Your task to perform on an android device: toggle javascript in the chrome app Image 0: 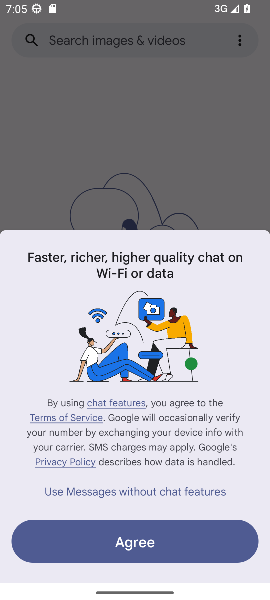
Step 0: press home button
Your task to perform on an android device: toggle javascript in the chrome app Image 1: 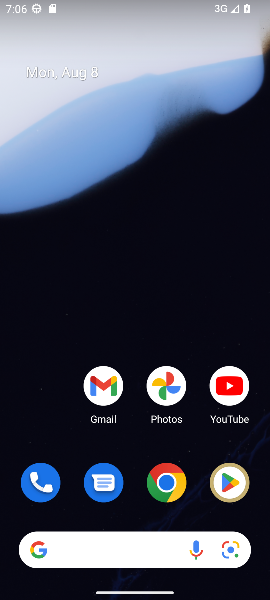
Step 1: drag from (83, 481) to (123, 0)
Your task to perform on an android device: toggle javascript in the chrome app Image 2: 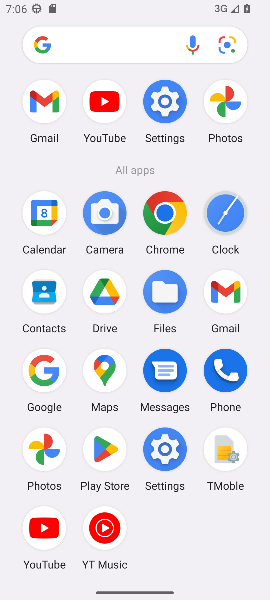
Step 2: click (154, 232)
Your task to perform on an android device: toggle javascript in the chrome app Image 3: 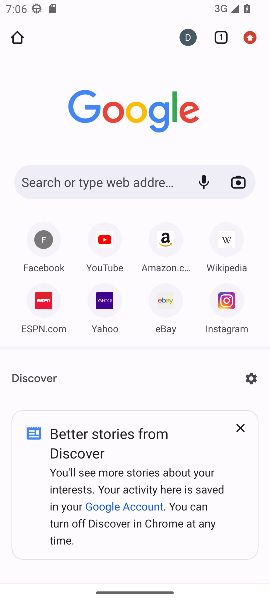
Step 3: drag from (252, 33) to (106, 396)
Your task to perform on an android device: toggle javascript in the chrome app Image 4: 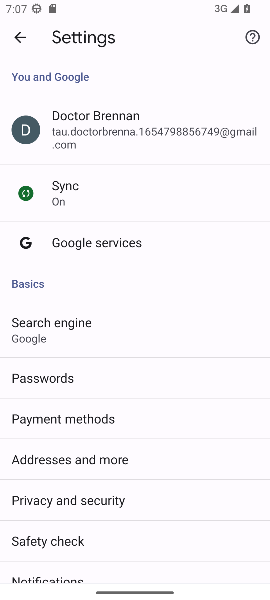
Step 4: drag from (108, 268) to (86, 108)
Your task to perform on an android device: toggle javascript in the chrome app Image 5: 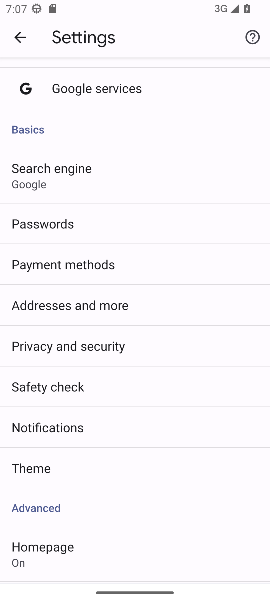
Step 5: drag from (78, 505) to (109, 101)
Your task to perform on an android device: toggle javascript in the chrome app Image 6: 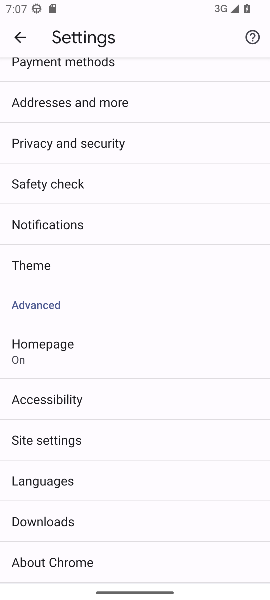
Step 6: click (42, 446)
Your task to perform on an android device: toggle javascript in the chrome app Image 7: 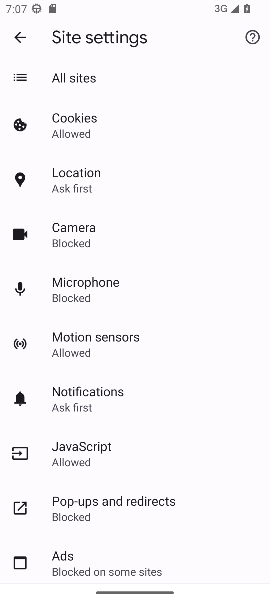
Step 7: click (70, 449)
Your task to perform on an android device: toggle javascript in the chrome app Image 8: 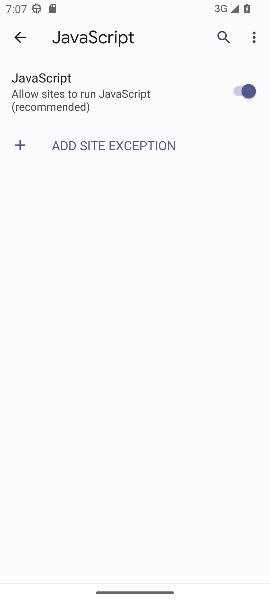
Step 8: click (241, 87)
Your task to perform on an android device: toggle javascript in the chrome app Image 9: 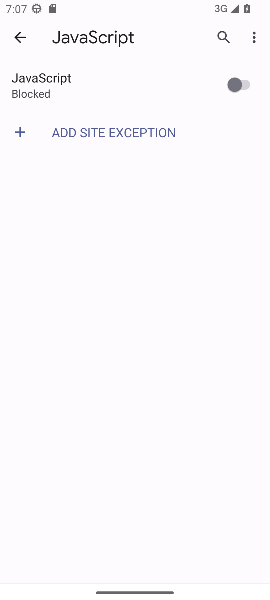
Step 9: task complete